Your task to perform on an android device: Search for Mexican restaurants on Maps Image 0: 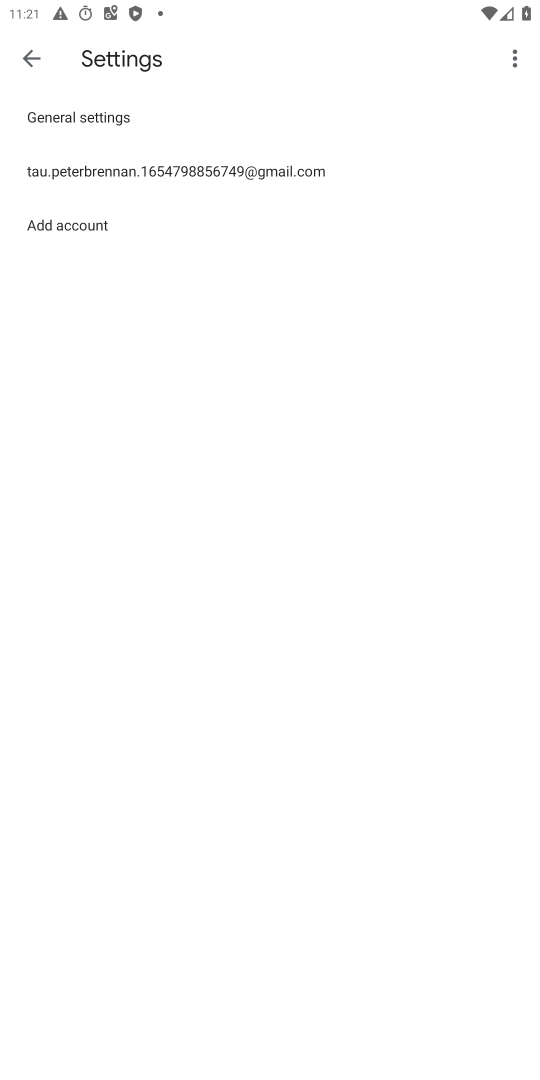
Step 0: press home button
Your task to perform on an android device: Search for Mexican restaurants on Maps Image 1: 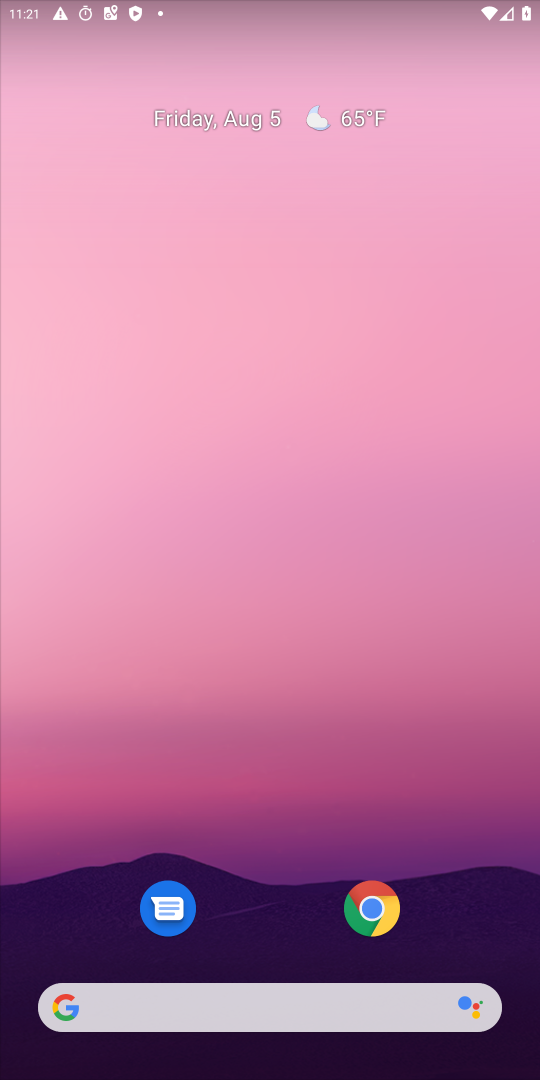
Step 1: drag from (31, 1026) to (83, 660)
Your task to perform on an android device: Search for Mexican restaurants on Maps Image 2: 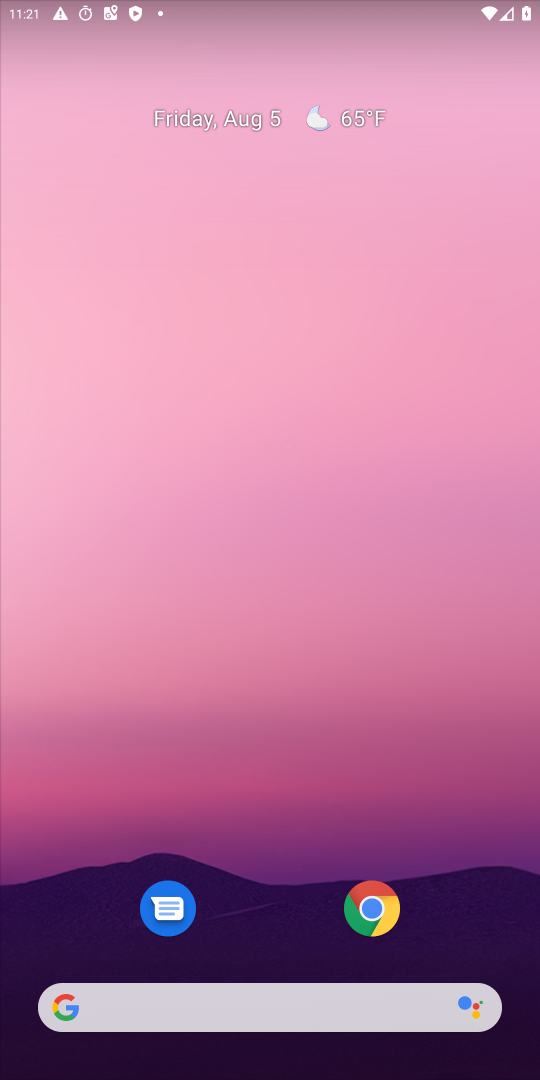
Step 2: drag from (48, 1063) to (533, 32)
Your task to perform on an android device: Search for Mexican restaurants on Maps Image 3: 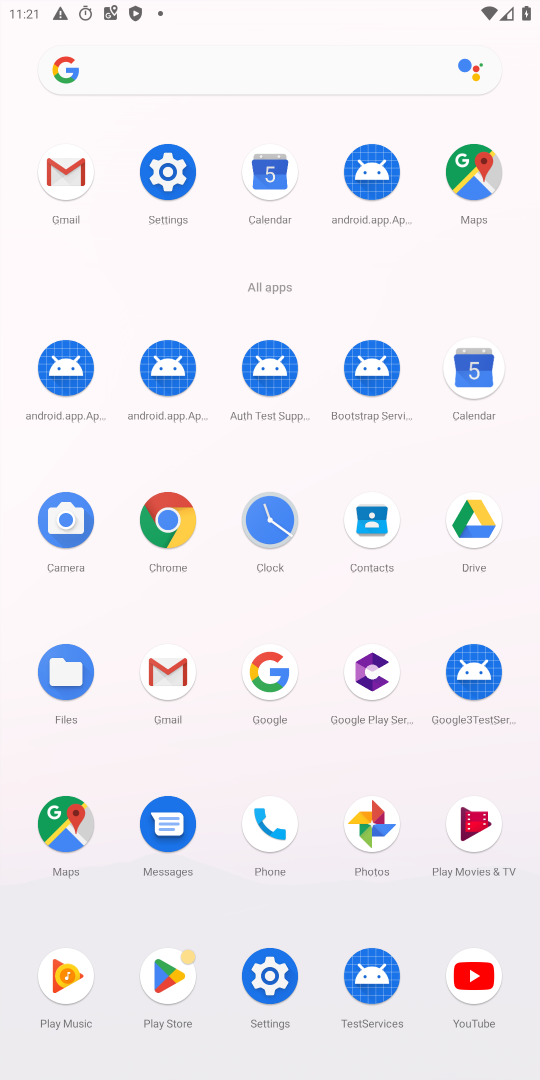
Step 3: click (55, 822)
Your task to perform on an android device: Search for Mexican restaurants on Maps Image 4: 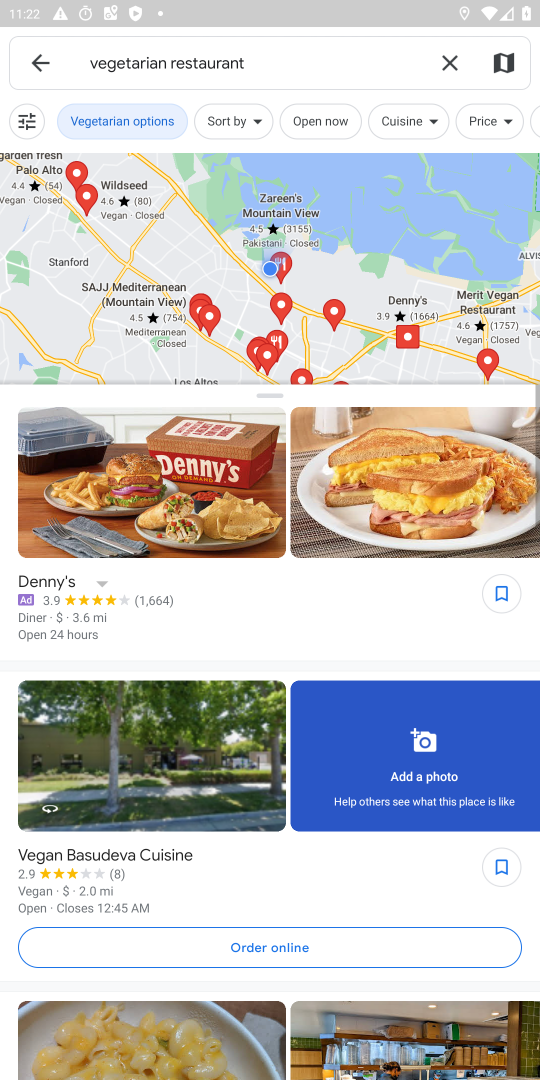
Step 4: click (442, 59)
Your task to perform on an android device: Search for Mexican restaurants on Maps Image 5: 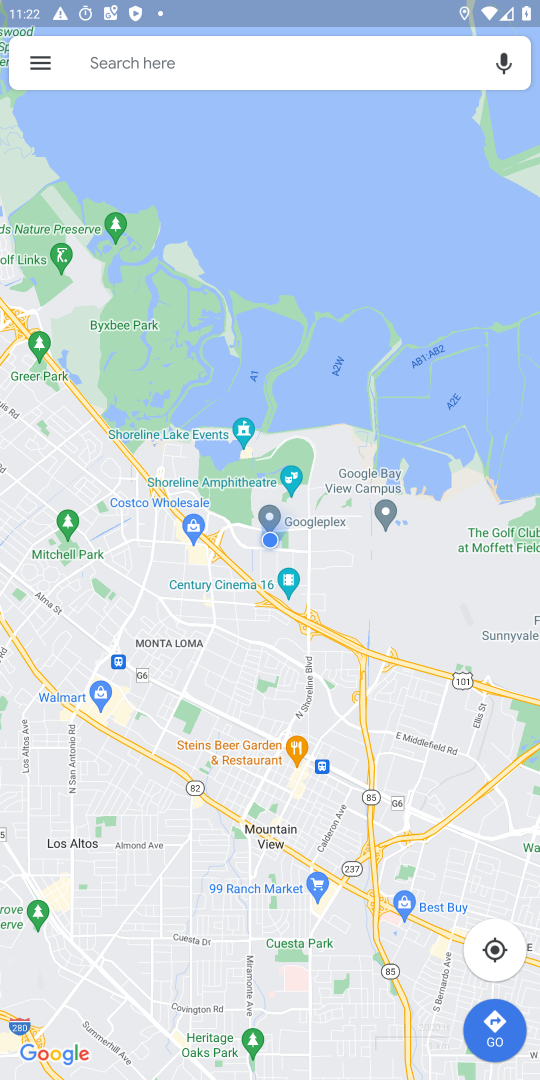
Step 5: click (93, 63)
Your task to perform on an android device: Search for Mexican restaurants on Maps Image 6: 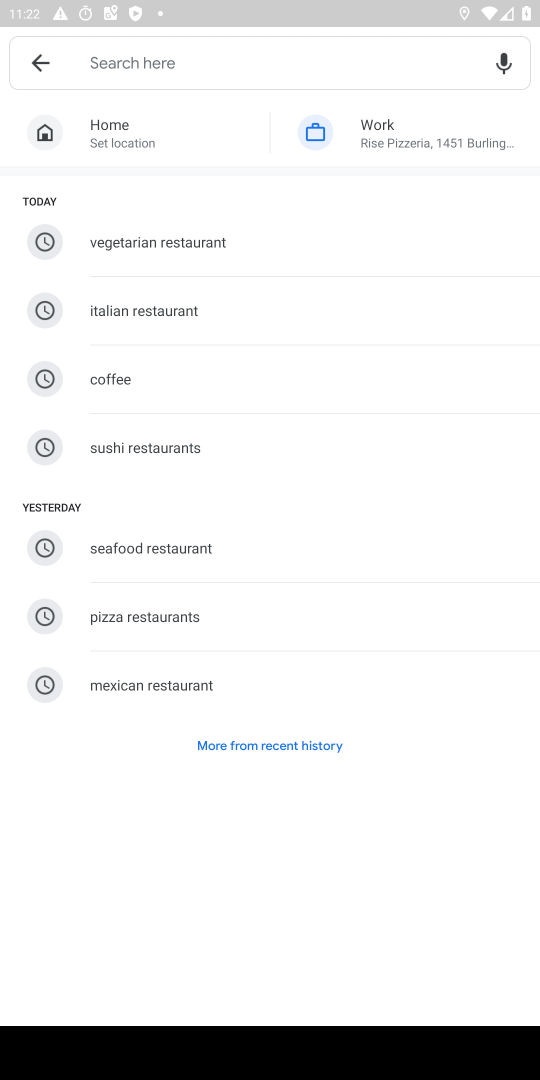
Step 6: click (157, 686)
Your task to perform on an android device: Search for Mexican restaurants on Maps Image 7: 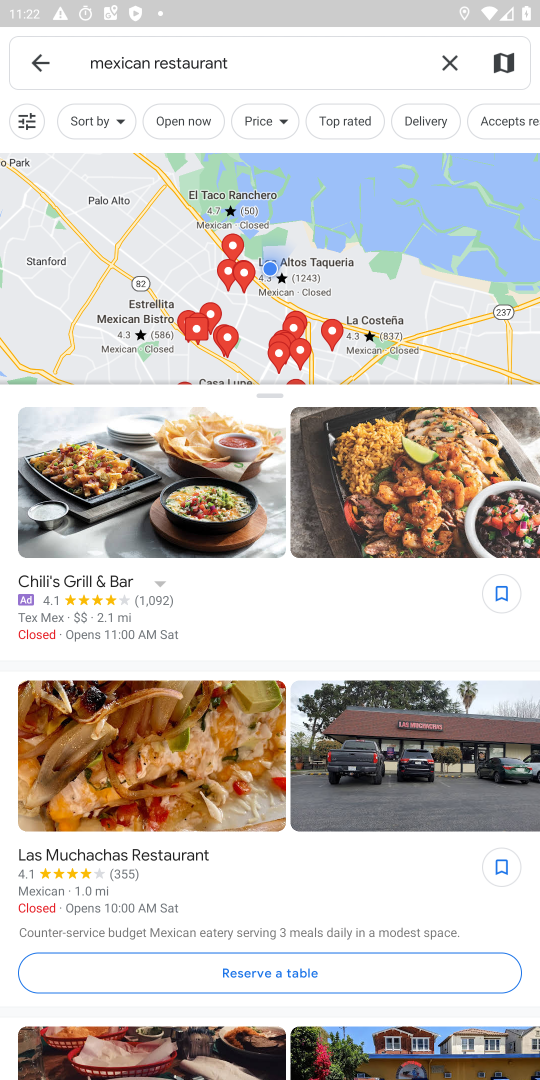
Step 7: task complete